Your task to perform on an android device: Search for lenovo thinkpad on amazon, select the first entry, add it to the cart, then select checkout. Image 0: 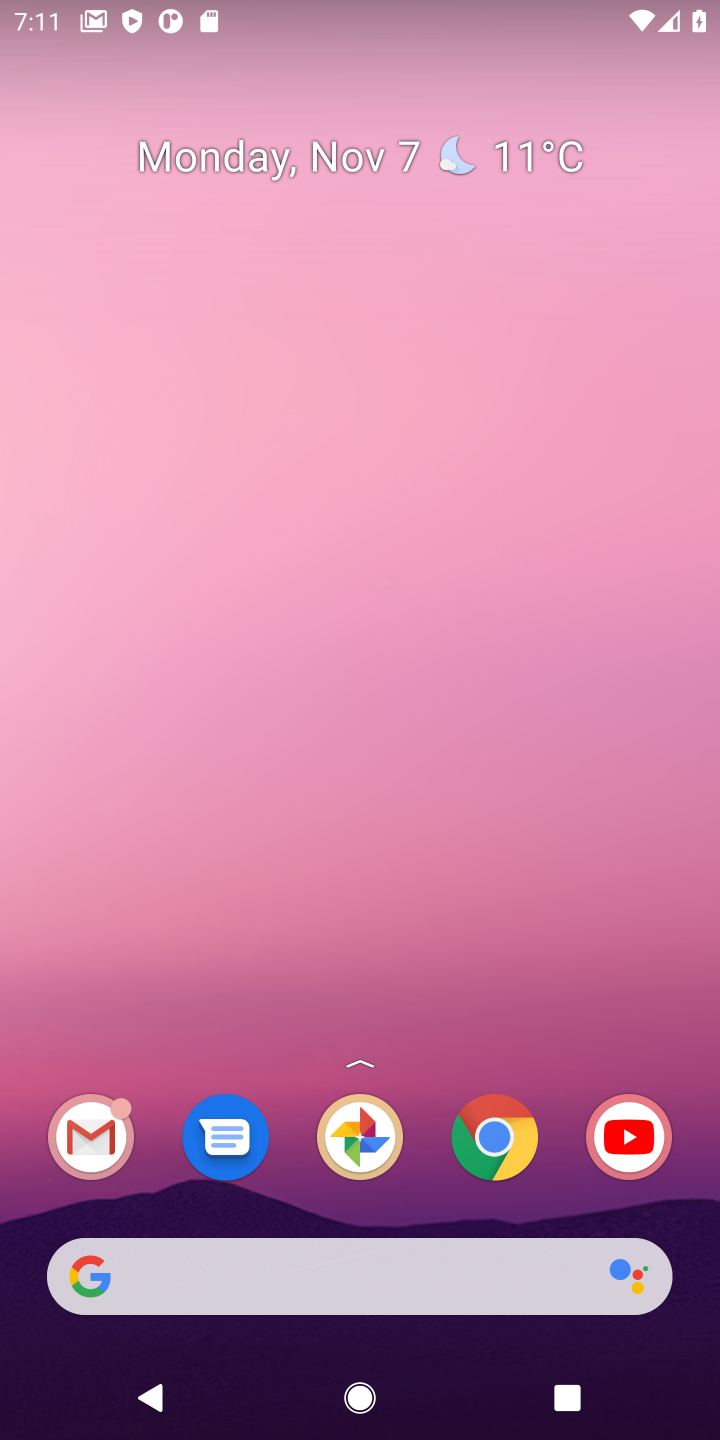
Step 0: click (503, 1137)
Your task to perform on an android device: Search for lenovo thinkpad on amazon, select the first entry, add it to the cart, then select checkout. Image 1: 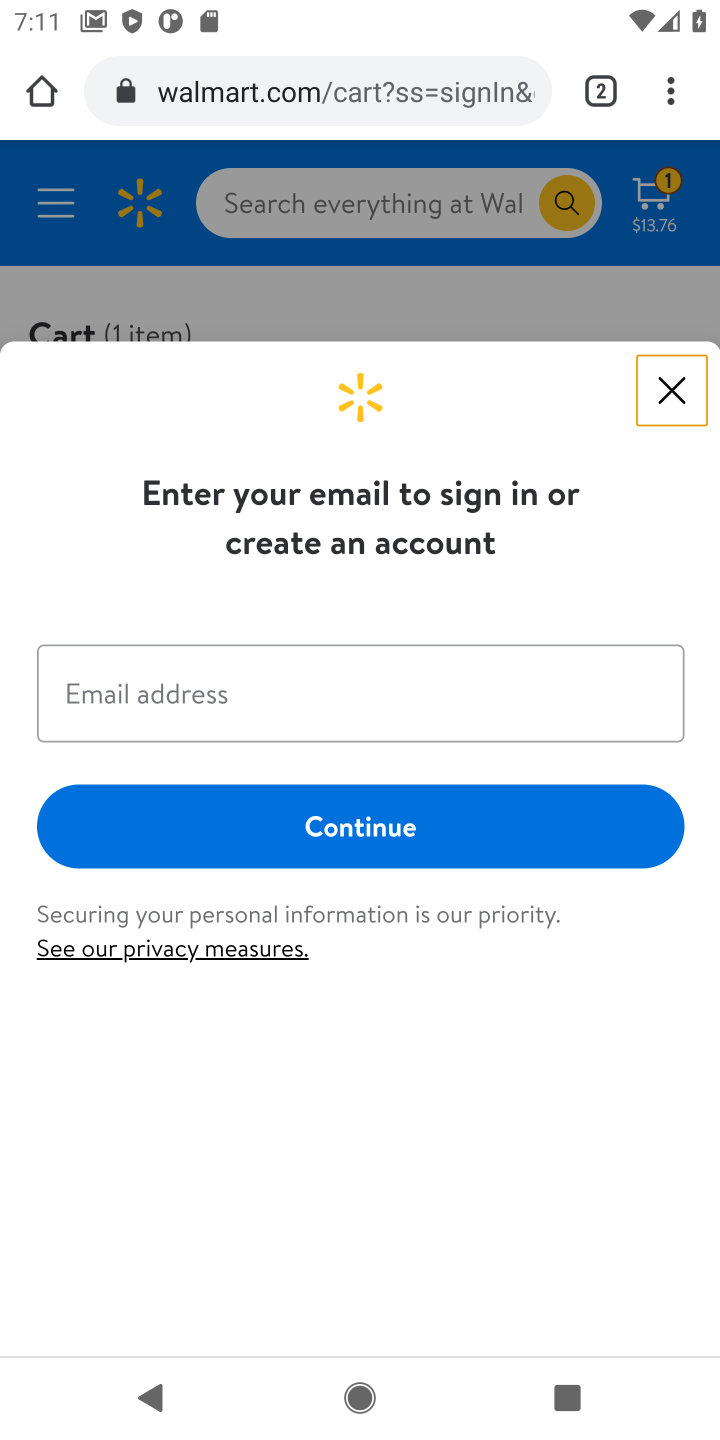
Step 1: click (608, 87)
Your task to perform on an android device: Search for lenovo thinkpad on amazon, select the first entry, add it to the cart, then select checkout. Image 2: 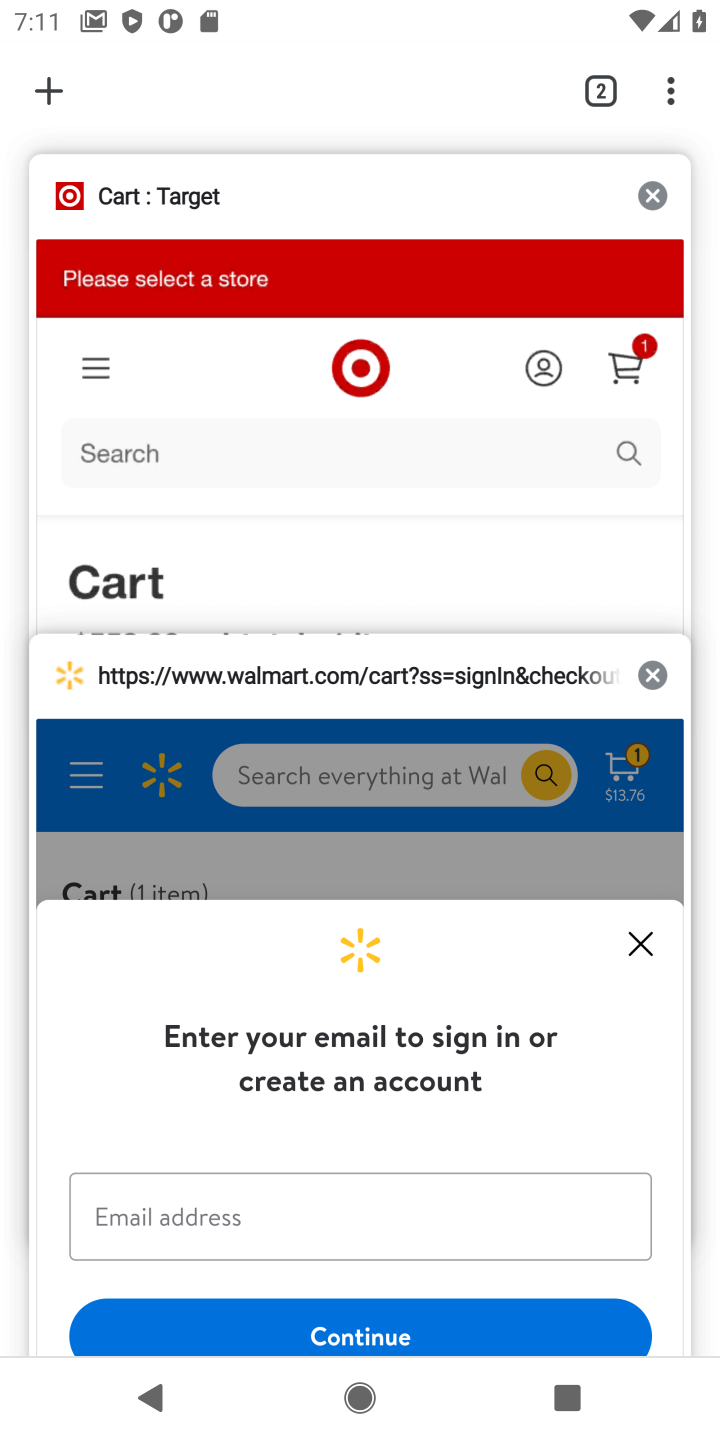
Step 2: click (31, 99)
Your task to perform on an android device: Search for lenovo thinkpad on amazon, select the first entry, add it to the cart, then select checkout. Image 3: 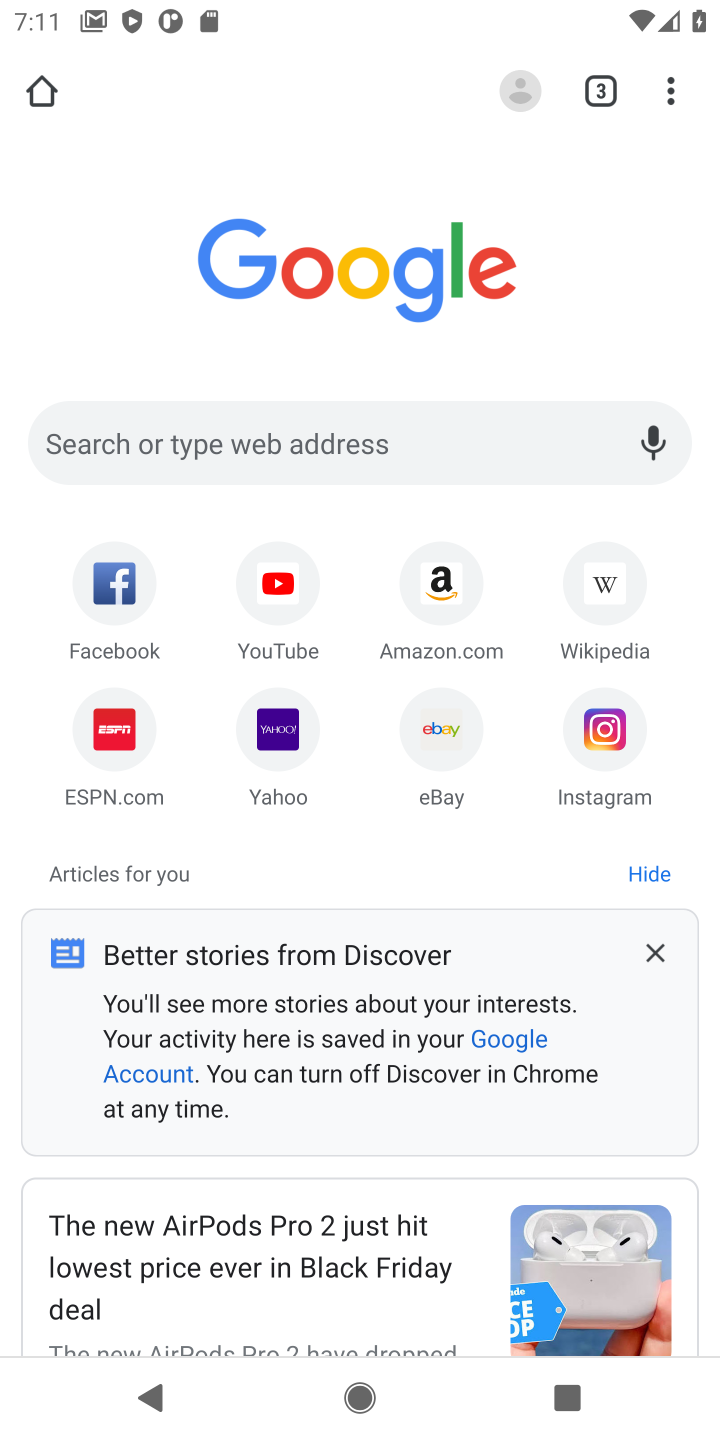
Step 3: click (451, 584)
Your task to perform on an android device: Search for lenovo thinkpad on amazon, select the first entry, add it to the cart, then select checkout. Image 4: 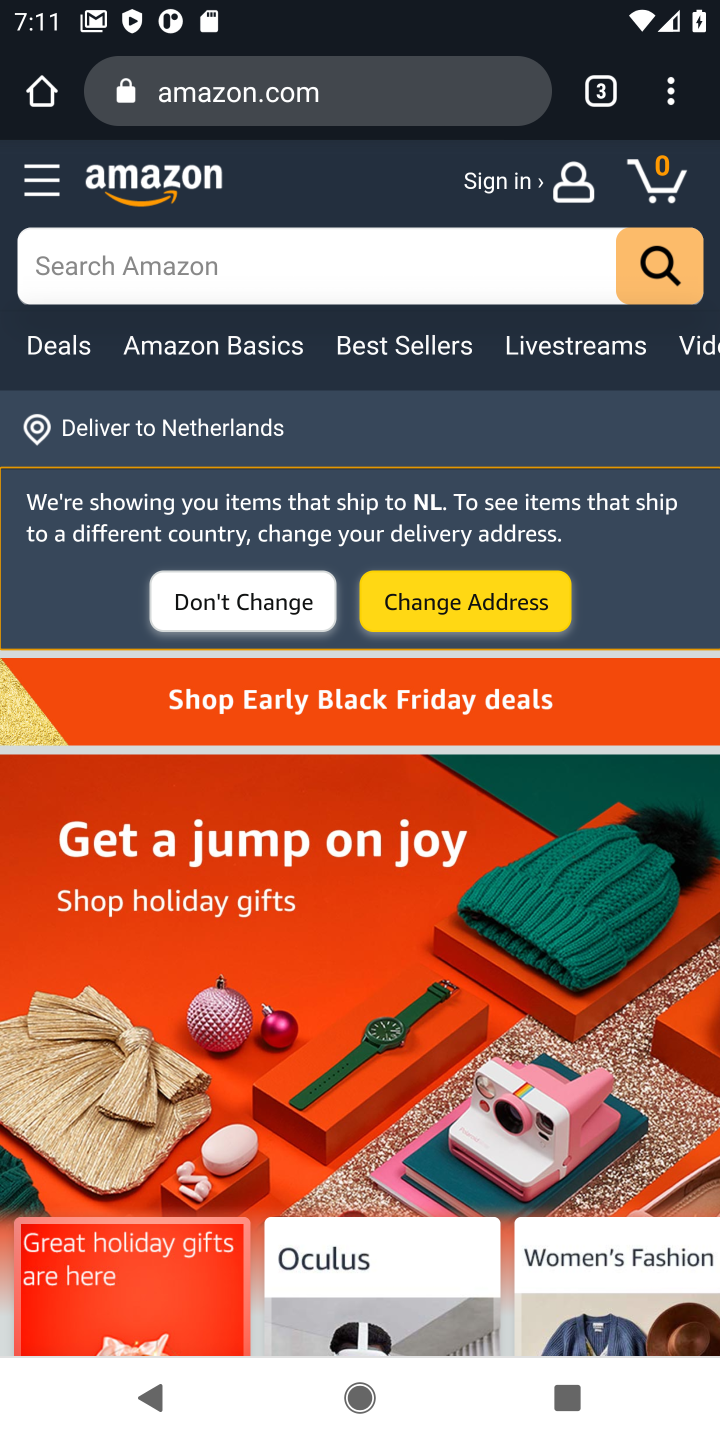
Step 4: click (280, 614)
Your task to perform on an android device: Search for lenovo thinkpad on amazon, select the first entry, add it to the cart, then select checkout. Image 5: 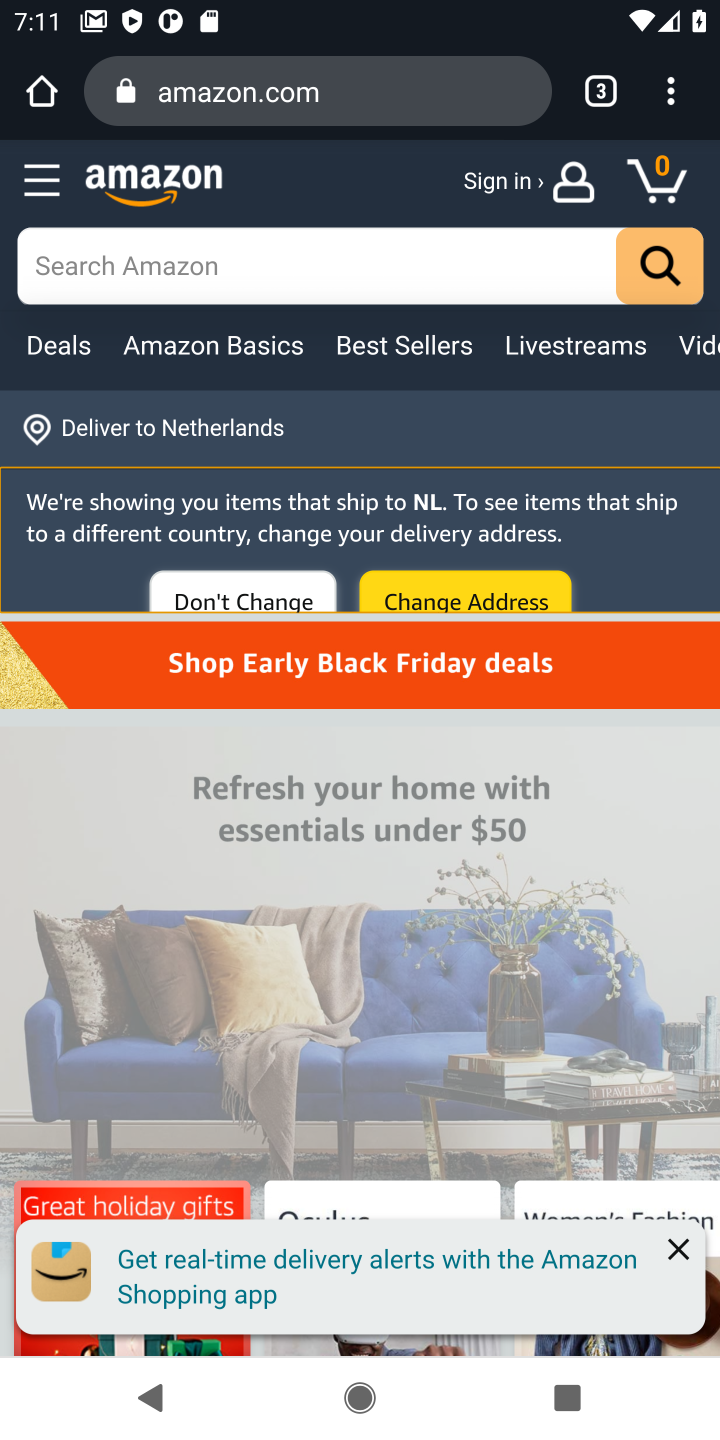
Step 5: click (178, 263)
Your task to perform on an android device: Search for lenovo thinkpad on amazon, select the first entry, add it to the cart, then select checkout. Image 6: 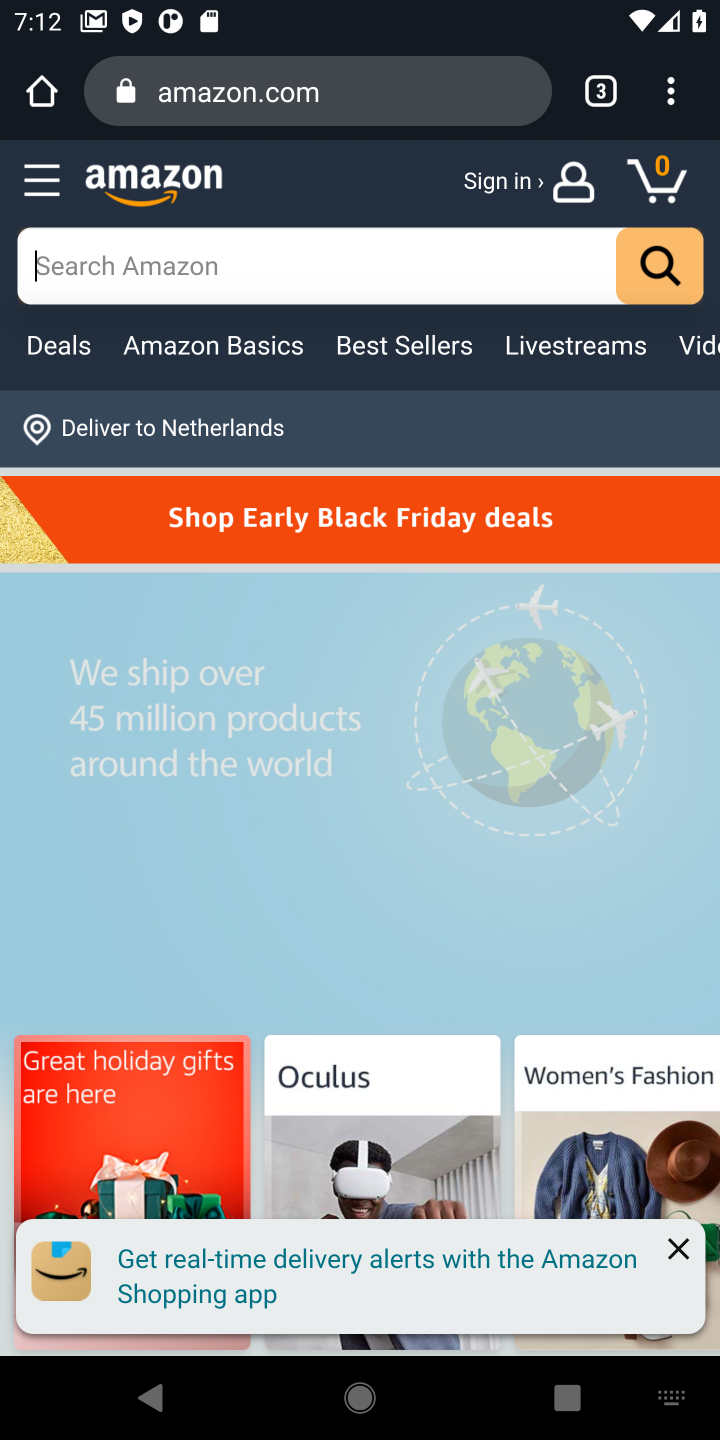
Step 6: type "lenovo thinkpad"
Your task to perform on an android device: Search for lenovo thinkpad on amazon, select the first entry, add it to the cart, then select checkout. Image 7: 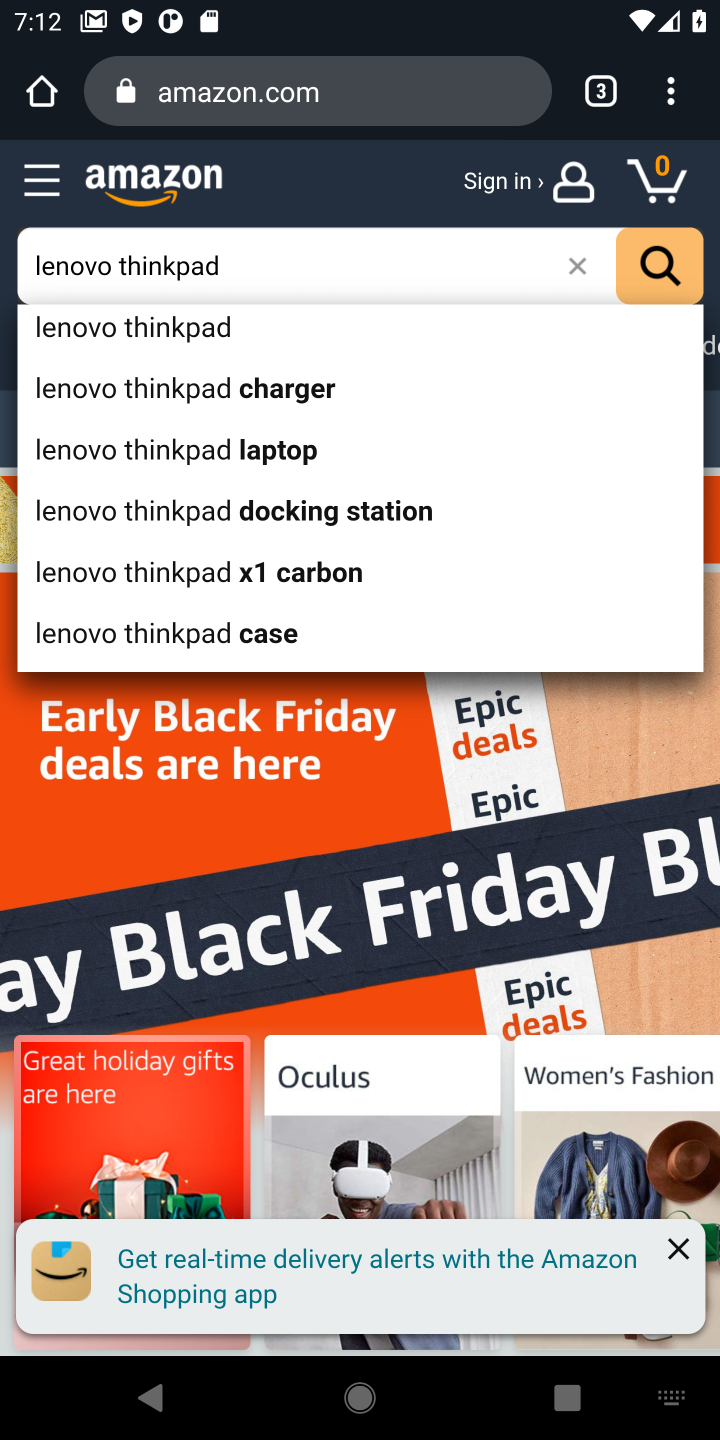
Step 7: click (192, 448)
Your task to perform on an android device: Search for lenovo thinkpad on amazon, select the first entry, add it to the cart, then select checkout. Image 8: 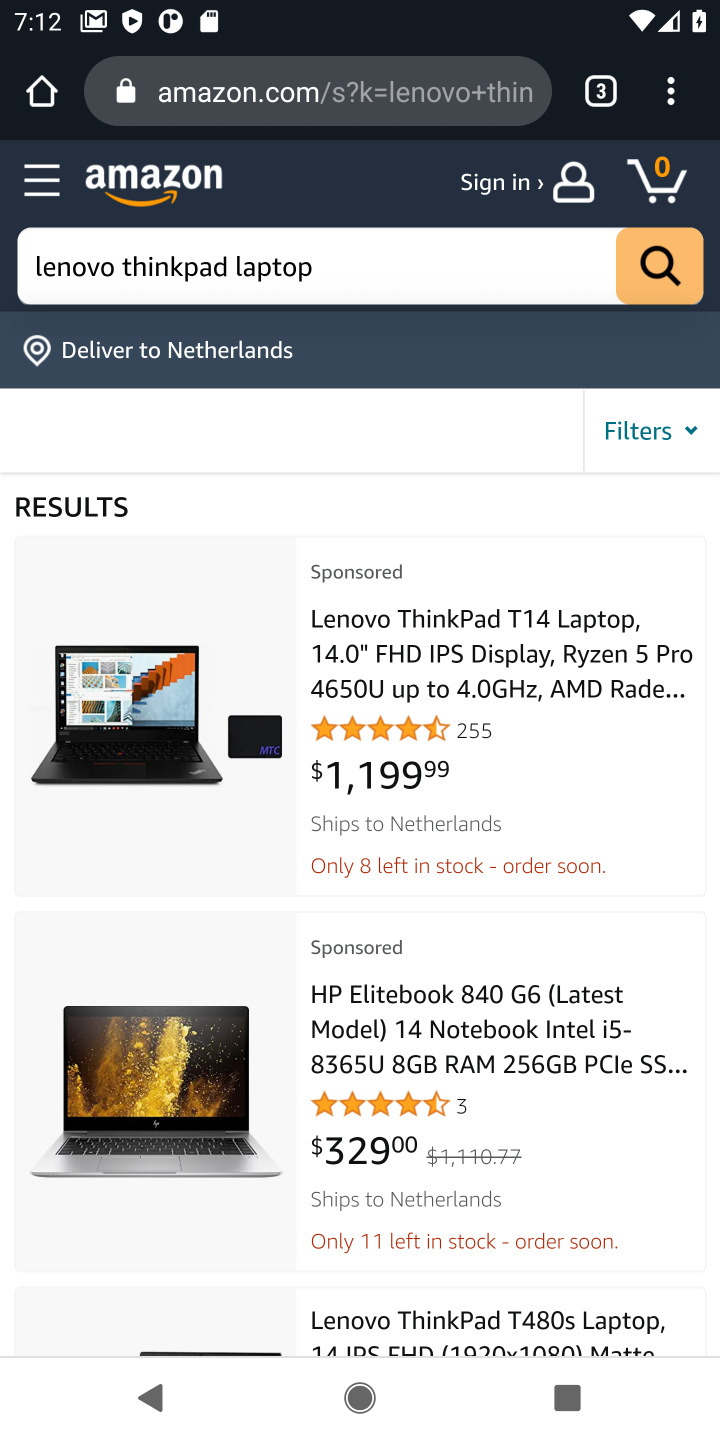
Step 8: click (499, 686)
Your task to perform on an android device: Search for lenovo thinkpad on amazon, select the first entry, add it to the cart, then select checkout. Image 9: 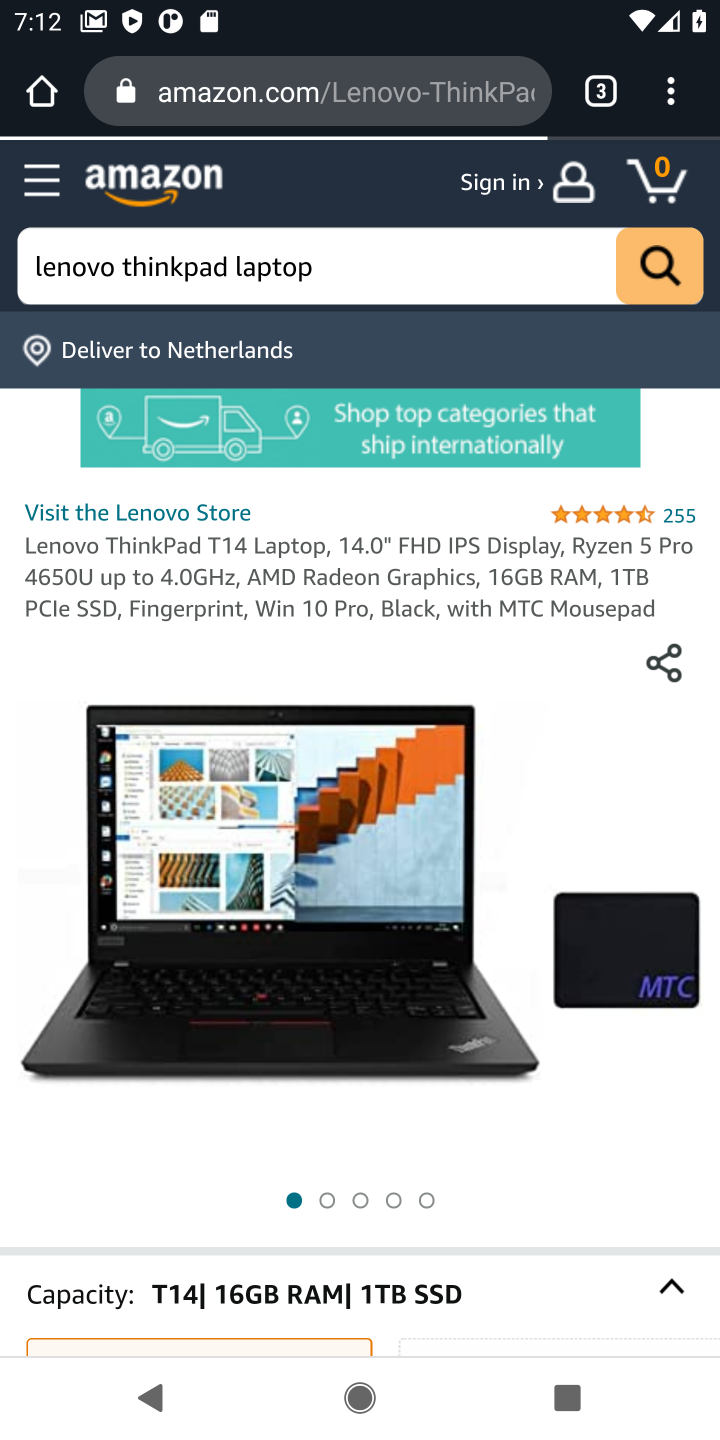
Step 9: drag from (316, 1258) to (432, 174)
Your task to perform on an android device: Search for lenovo thinkpad on amazon, select the first entry, add it to the cart, then select checkout. Image 10: 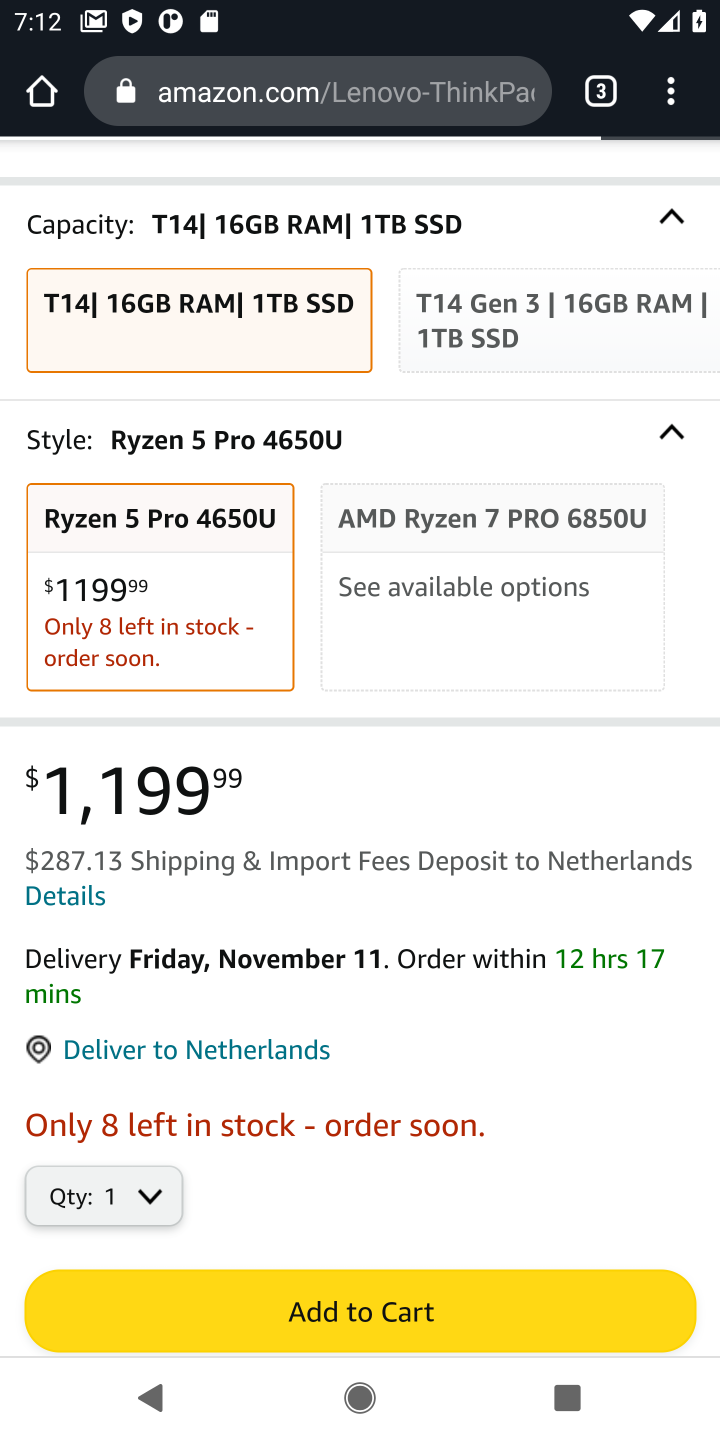
Step 10: click (372, 1307)
Your task to perform on an android device: Search for lenovo thinkpad on amazon, select the first entry, add it to the cart, then select checkout. Image 11: 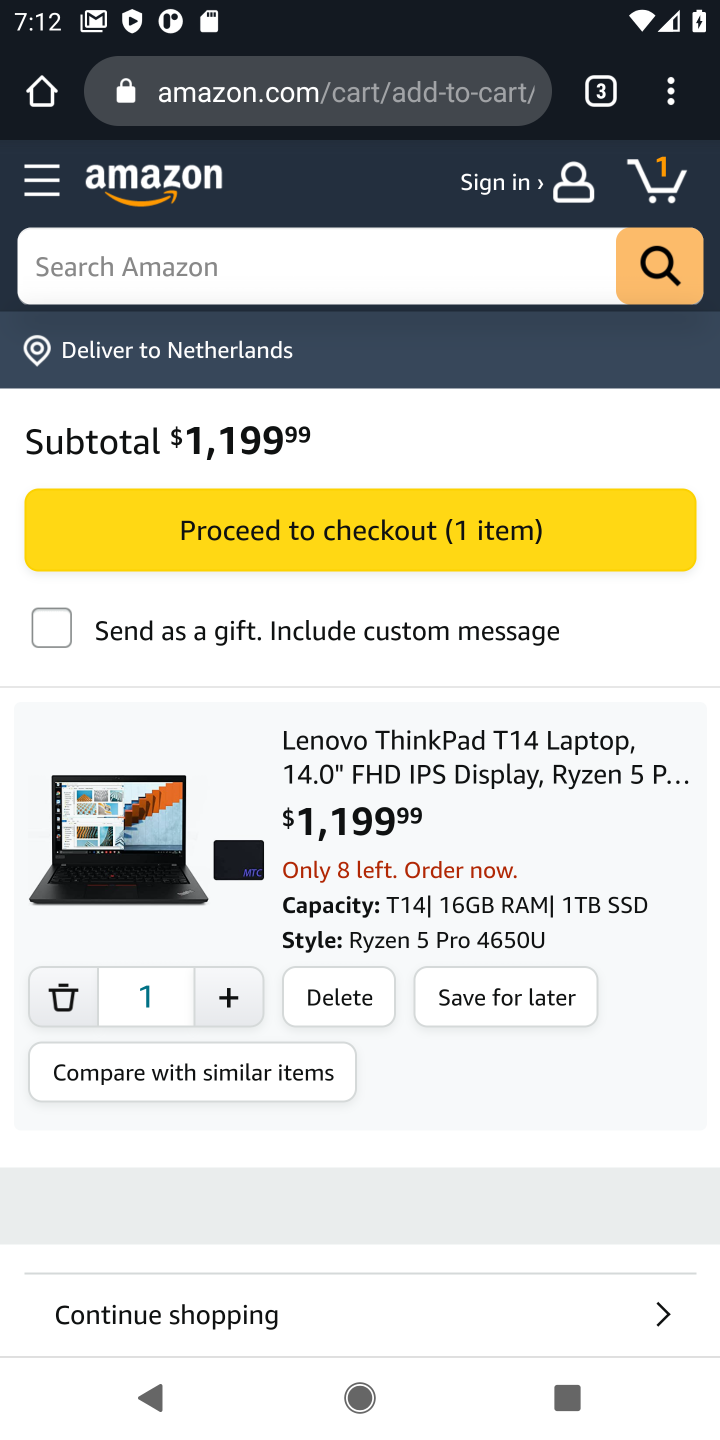
Step 11: click (348, 528)
Your task to perform on an android device: Search for lenovo thinkpad on amazon, select the first entry, add it to the cart, then select checkout. Image 12: 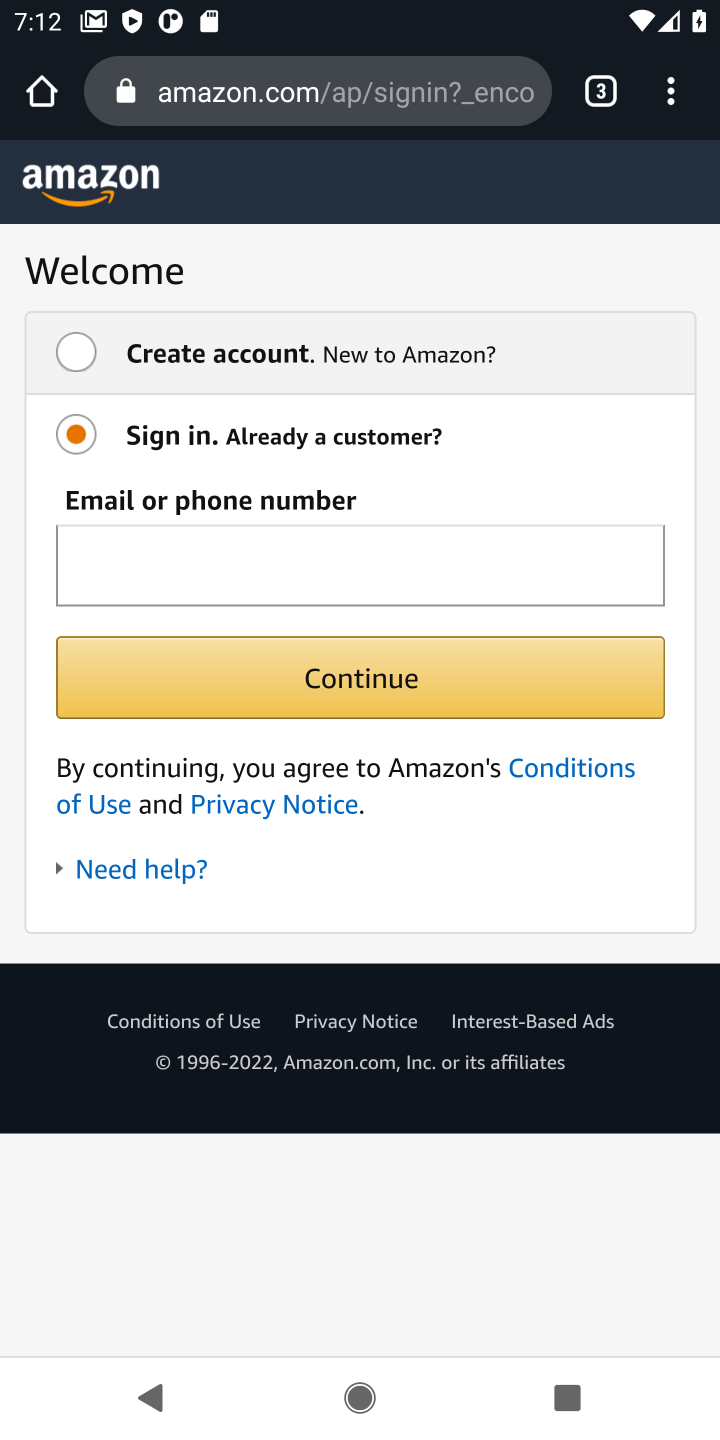
Step 12: task complete